Your task to perform on an android device: change notification settings in the gmail app Image 0: 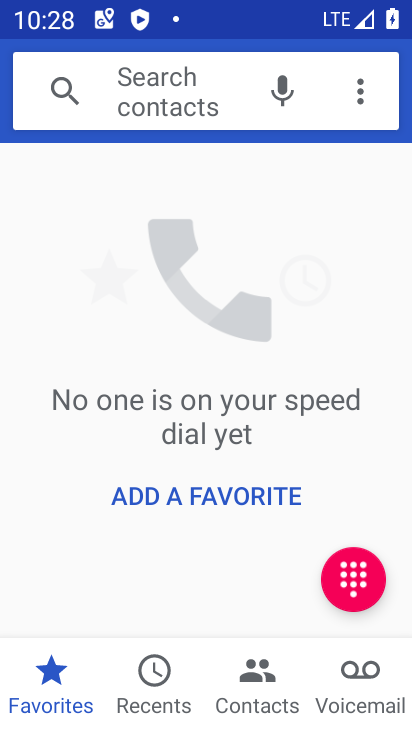
Step 0: press home button
Your task to perform on an android device: change notification settings in the gmail app Image 1: 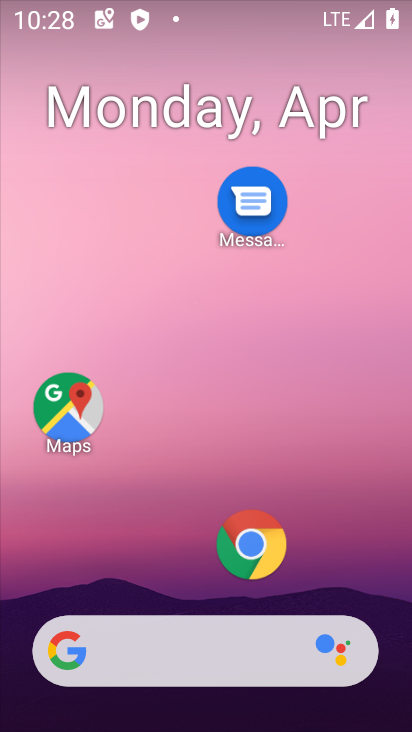
Step 1: drag from (183, 580) to (233, 71)
Your task to perform on an android device: change notification settings in the gmail app Image 2: 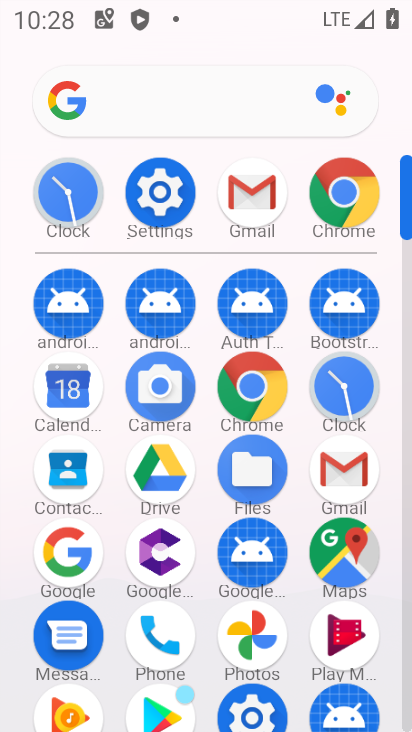
Step 2: click (343, 460)
Your task to perform on an android device: change notification settings in the gmail app Image 3: 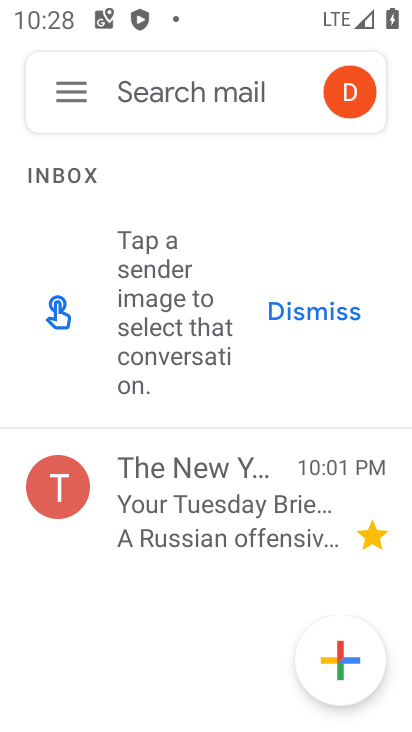
Step 3: click (55, 94)
Your task to perform on an android device: change notification settings in the gmail app Image 4: 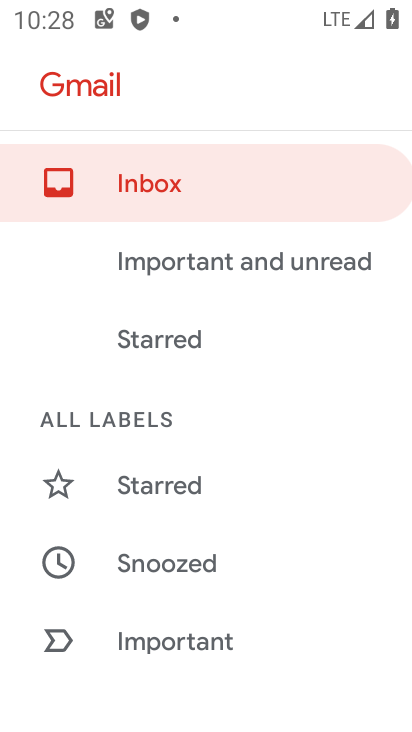
Step 4: drag from (199, 637) to (222, 184)
Your task to perform on an android device: change notification settings in the gmail app Image 5: 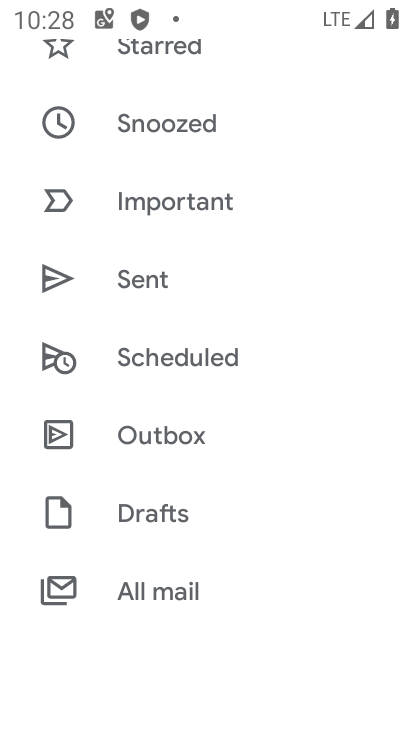
Step 5: drag from (159, 577) to (210, 44)
Your task to perform on an android device: change notification settings in the gmail app Image 6: 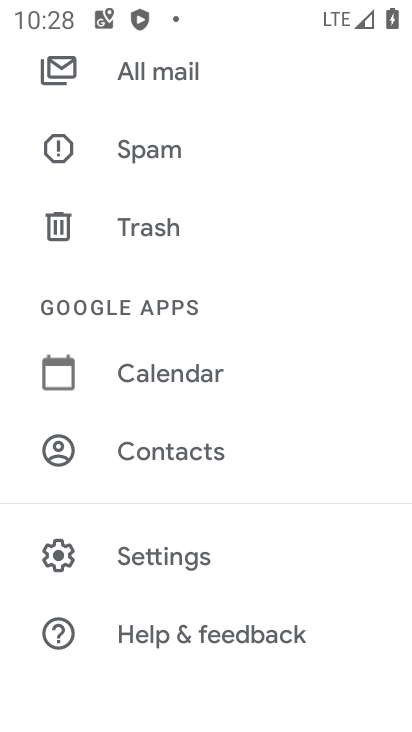
Step 6: click (99, 548)
Your task to perform on an android device: change notification settings in the gmail app Image 7: 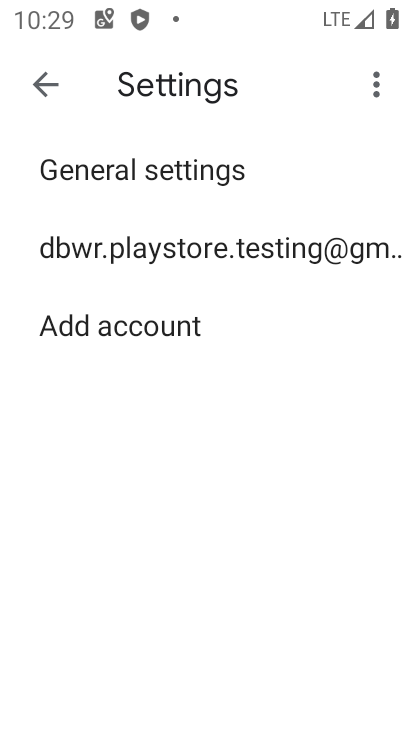
Step 7: click (196, 173)
Your task to perform on an android device: change notification settings in the gmail app Image 8: 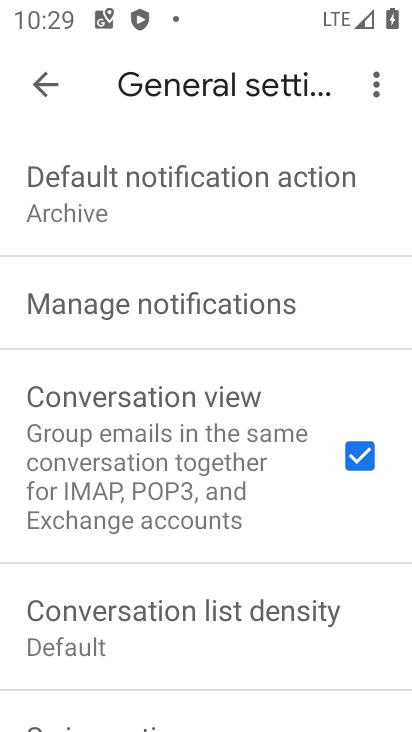
Step 8: click (186, 288)
Your task to perform on an android device: change notification settings in the gmail app Image 9: 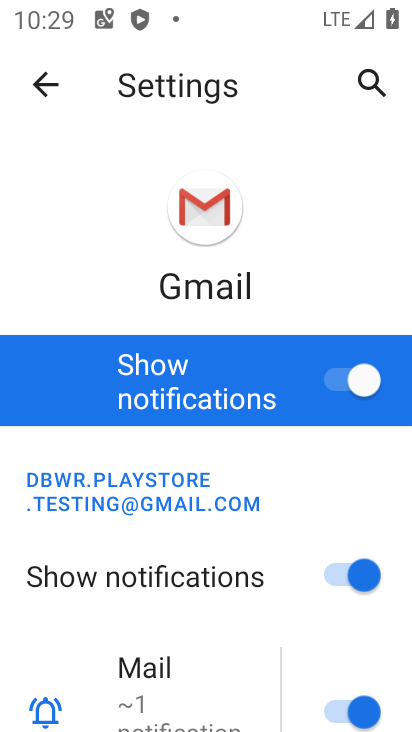
Step 9: click (338, 370)
Your task to perform on an android device: change notification settings in the gmail app Image 10: 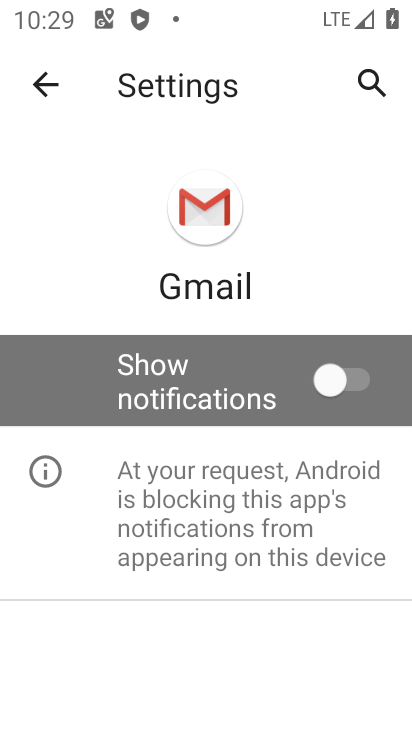
Step 10: task complete